Your task to perform on an android device: toggle improve location accuracy Image 0: 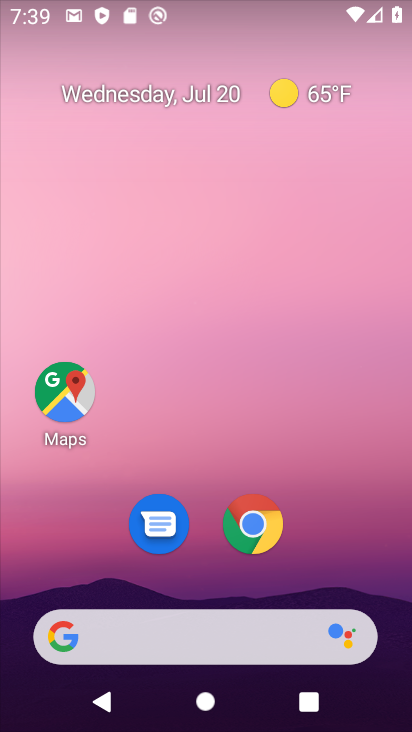
Step 0: drag from (318, 538) to (365, 54)
Your task to perform on an android device: toggle improve location accuracy Image 1: 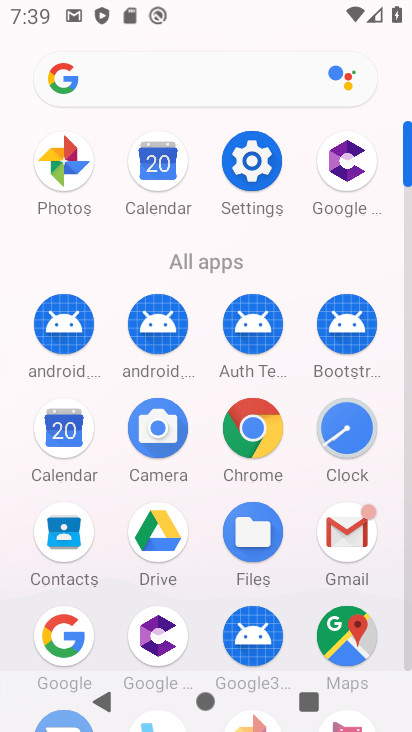
Step 1: click (248, 150)
Your task to perform on an android device: toggle improve location accuracy Image 2: 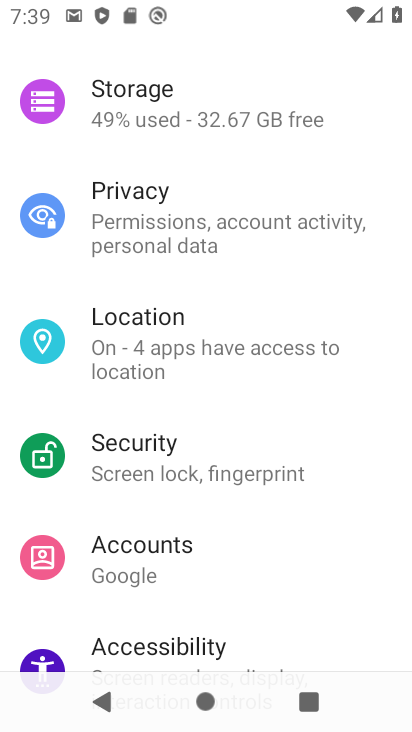
Step 2: click (195, 324)
Your task to perform on an android device: toggle improve location accuracy Image 3: 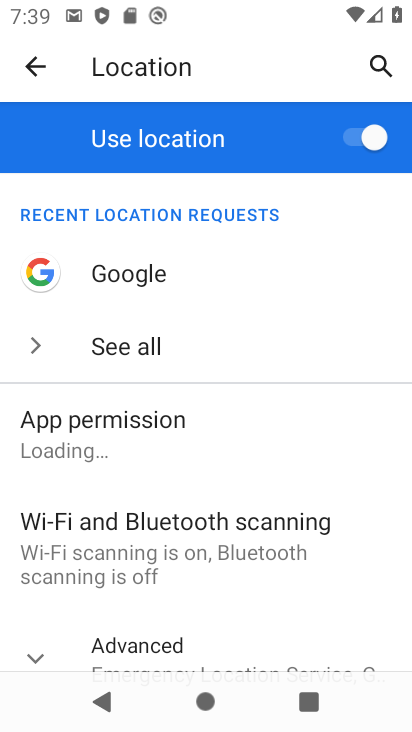
Step 3: click (38, 654)
Your task to perform on an android device: toggle improve location accuracy Image 4: 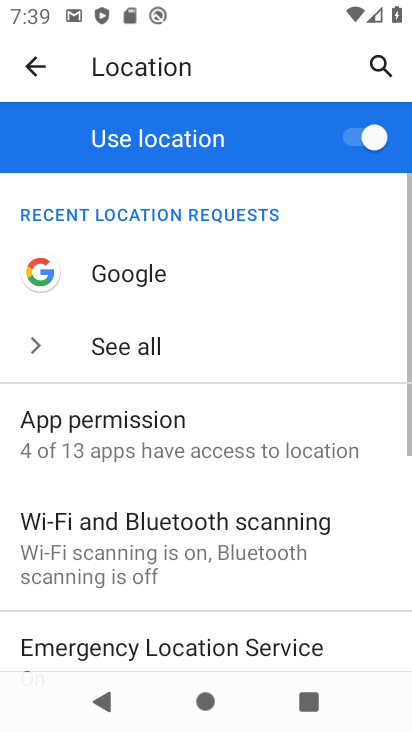
Step 4: drag from (139, 573) to (215, 265)
Your task to perform on an android device: toggle improve location accuracy Image 5: 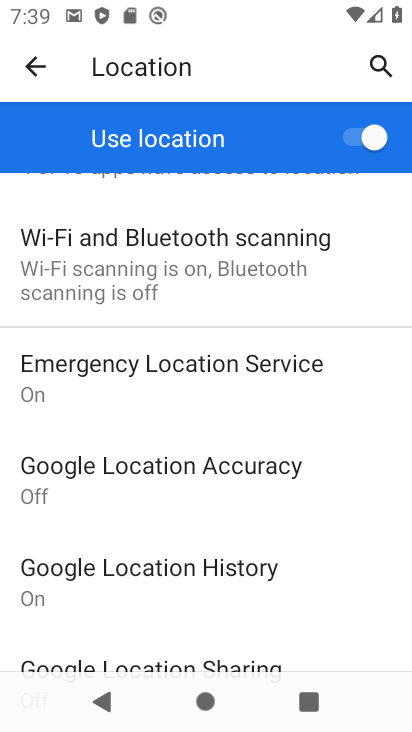
Step 5: click (216, 479)
Your task to perform on an android device: toggle improve location accuracy Image 6: 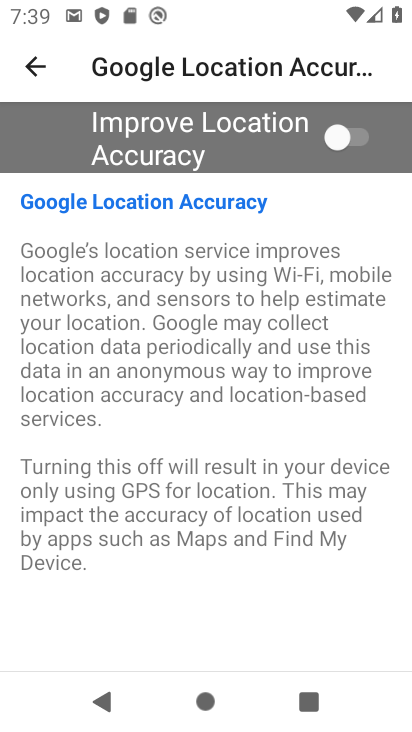
Step 6: click (334, 135)
Your task to perform on an android device: toggle improve location accuracy Image 7: 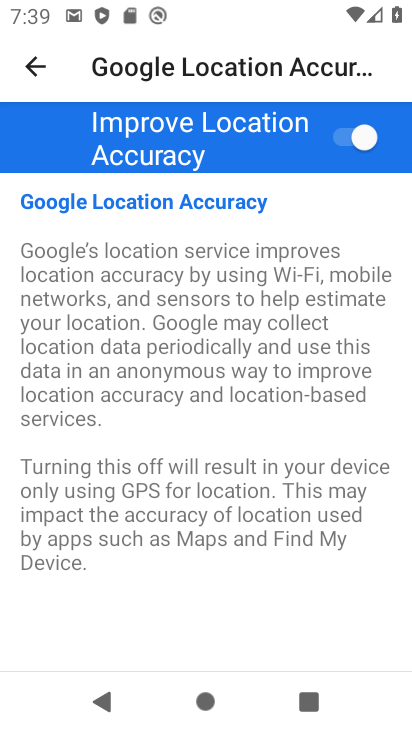
Step 7: task complete